Your task to perform on an android device: turn on the 24-hour format for clock Image 0: 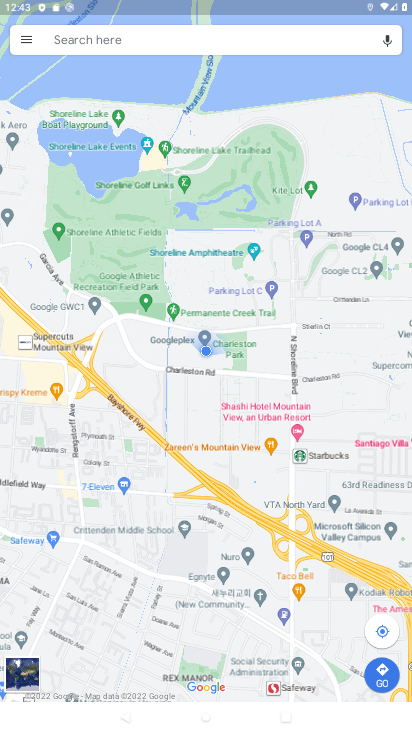
Step 0: press home button
Your task to perform on an android device: turn on the 24-hour format for clock Image 1: 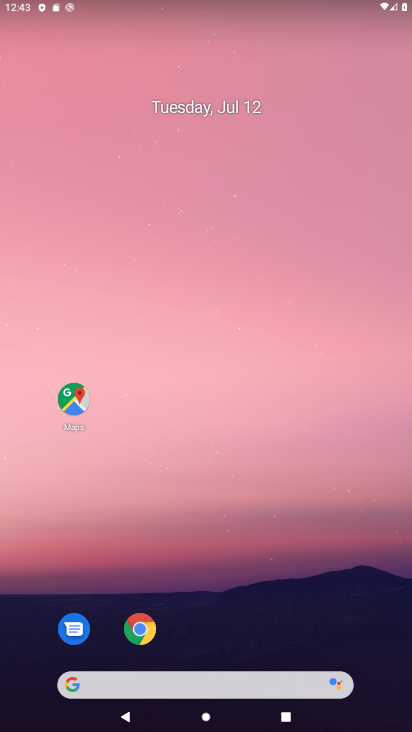
Step 1: drag from (247, 642) to (142, 43)
Your task to perform on an android device: turn on the 24-hour format for clock Image 2: 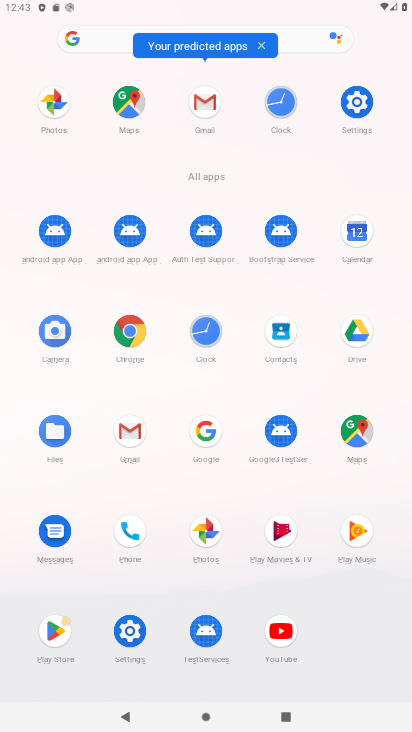
Step 2: click (216, 323)
Your task to perform on an android device: turn on the 24-hour format for clock Image 3: 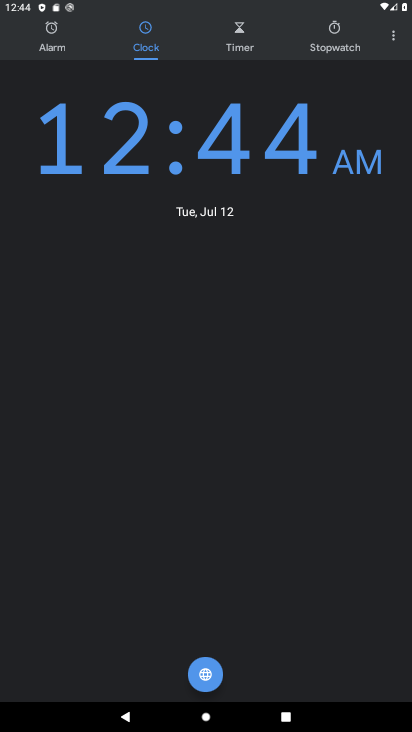
Step 3: click (392, 23)
Your task to perform on an android device: turn on the 24-hour format for clock Image 4: 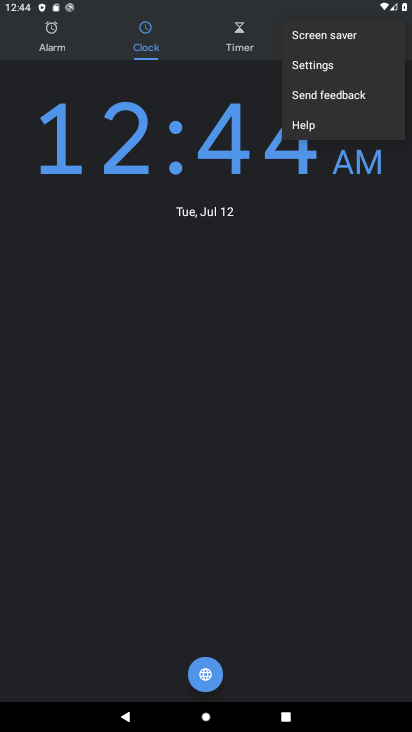
Step 4: click (296, 69)
Your task to perform on an android device: turn on the 24-hour format for clock Image 5: 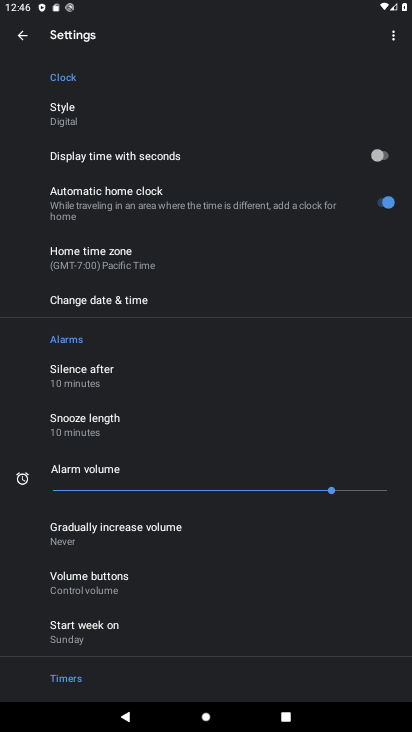
Step 5: click (145, 293)
Your task to perform on an android device: turn on the 24-hour format for clock Image 6: 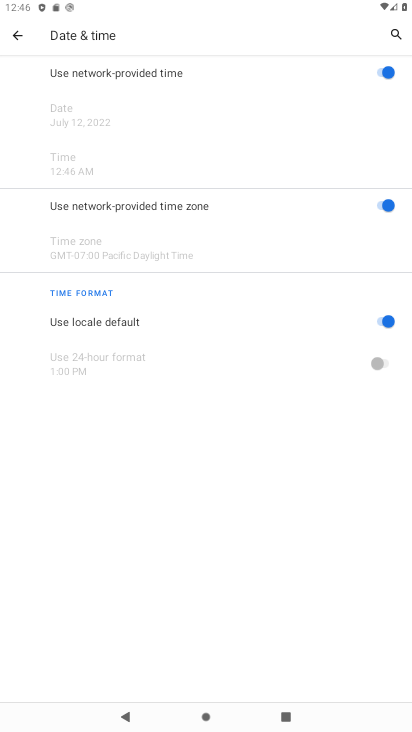
Step 6: click (152, 310)
Your task to perform on an android device: turn on the 24-hour format for clock Image 7: 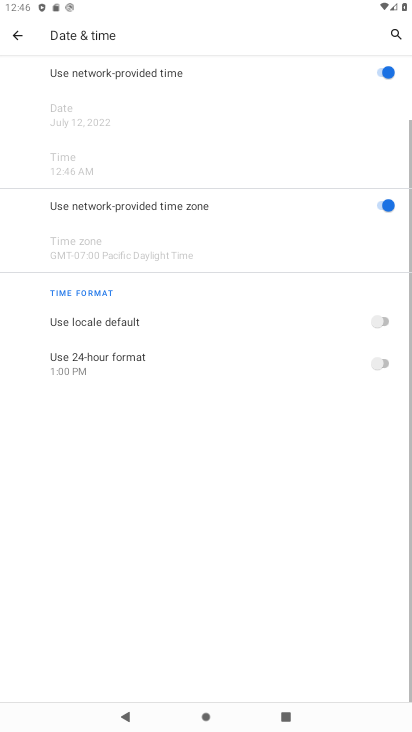
Step 7: click (159, 356)
Your task to perform on an android device: turn on the 24-hour format for clock Image 8: 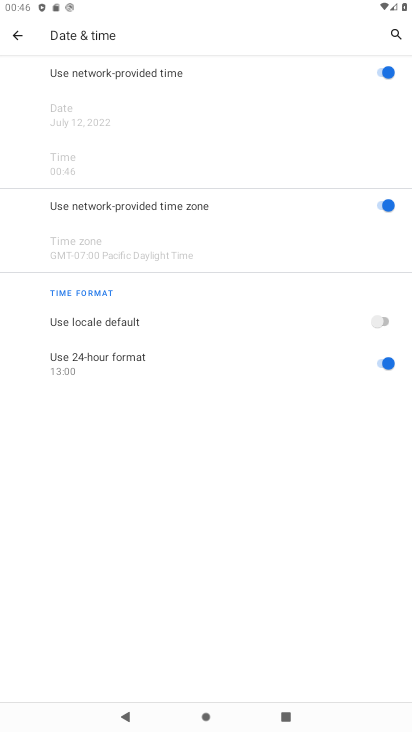
Step 8: task complete